Your task to perform on an android device: change the clock style Image 0: 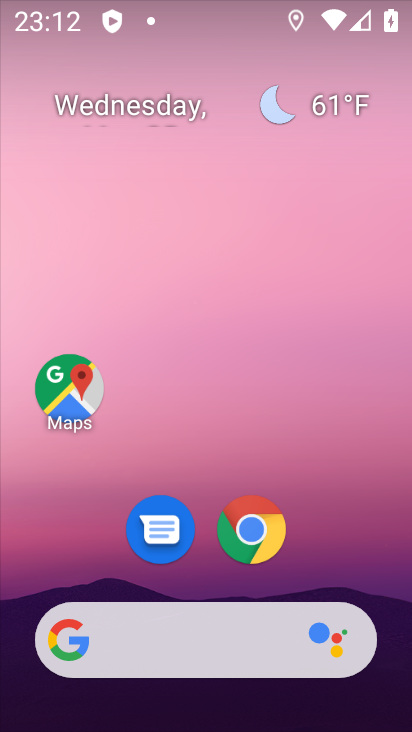
Step 0: drag from (381, 558) to (360, 254)
Your task to perform on an android device: change the clock style Image 1: 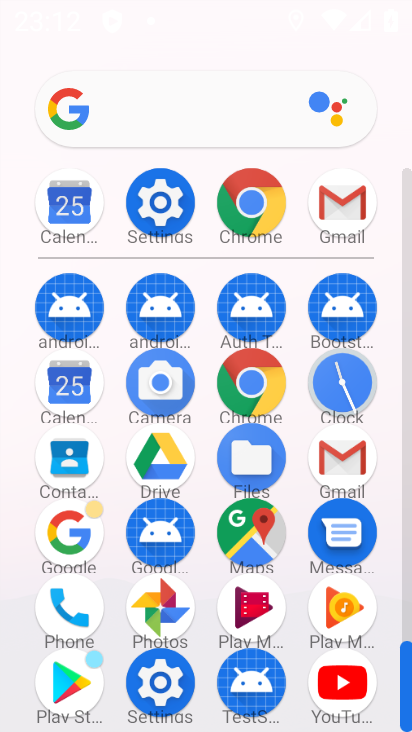
Step 1: click (352, 385)
Your task to perform on an android device: change the clock style Image 2: 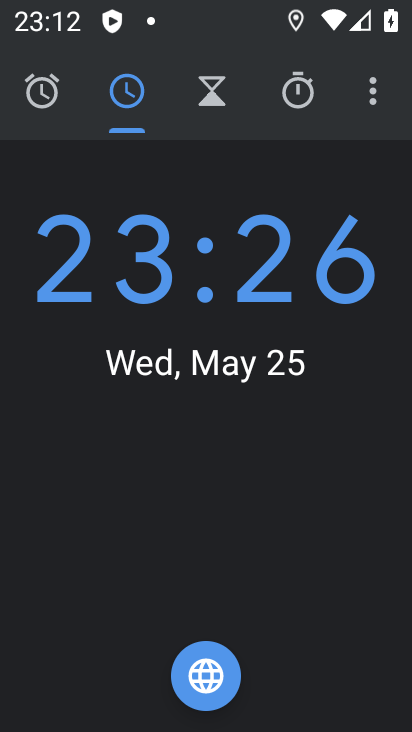
Step 2: click (374, 107)
Your task to perform on an android device: change the clock style Image 3: 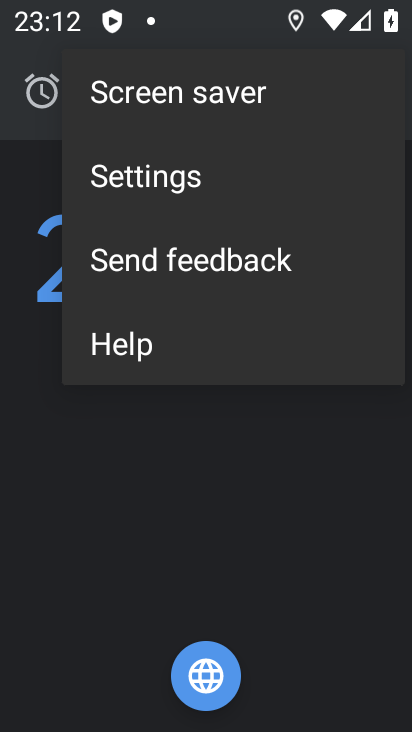
Step 3: click (184, 186)
Your task to perform on an android device: change the clock style Image 4: 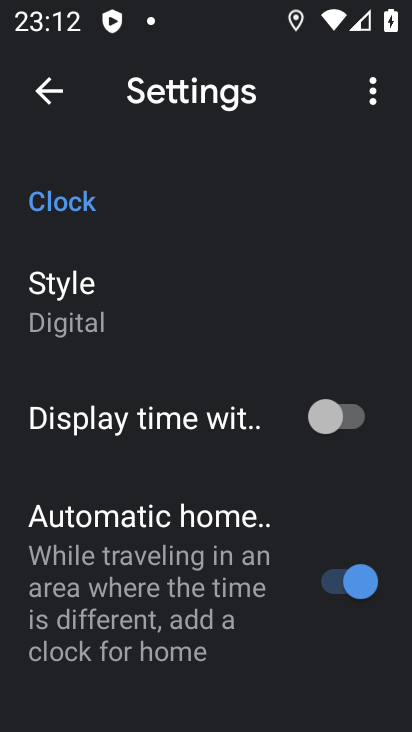
Step 4: drag from (298, 637) to (290, 502)
Your task to perform on an android device: change the clock style Image 5: 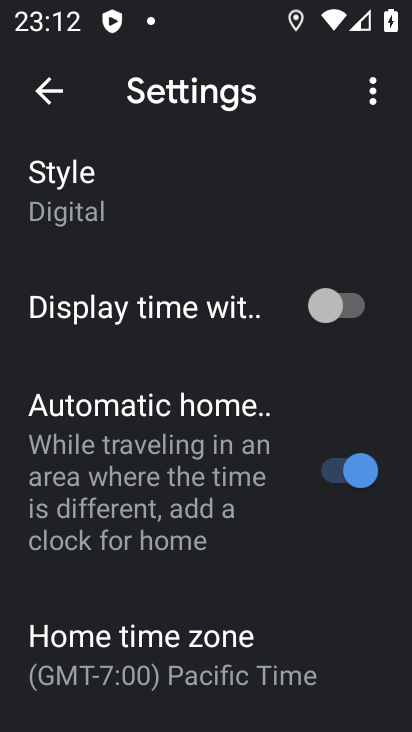
Step 5: drag from (305, 607) to (313, 528)
Your task to perform on an android device: change the clock style Image 6: 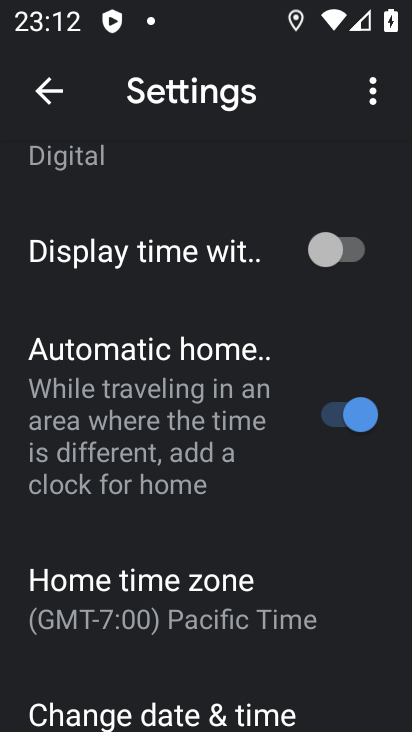
Step 6: drag from (321, 646) to (315, 518)
Your task to perform on an android device: change the clock style Image 7: 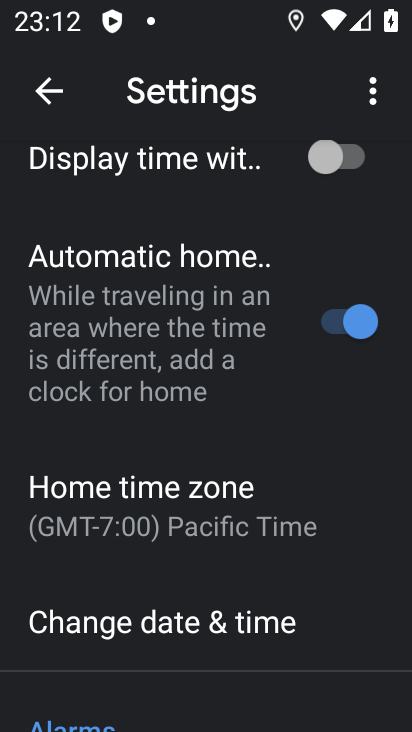
Step 7: drag from (332, 643) to (344, 516)
Your task to perform on an android device: change the clock style Image 8: 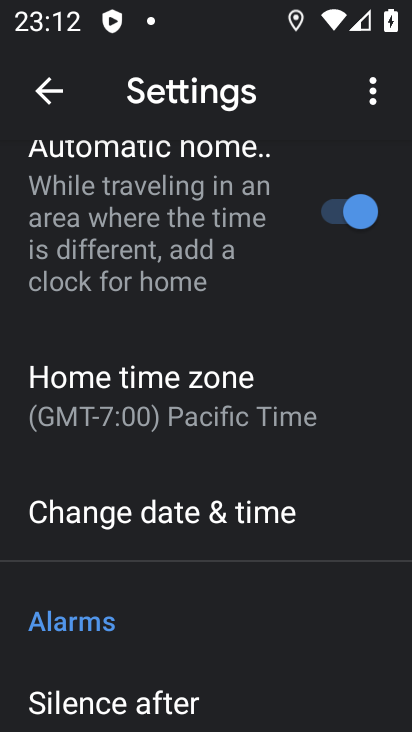
Step 8: drag from (355, 636) to (346, 522)
Your task to perform on an android device: change the clock style Image 9: 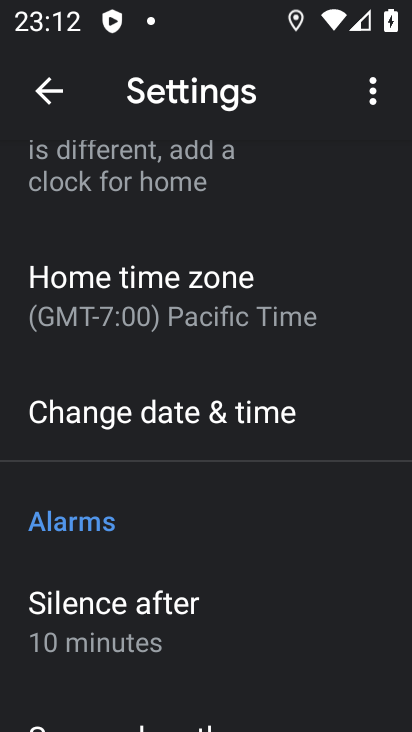
Step 9: drag from (366, 643) to (367, 527)
Your task to perform on an android device: change the clock style Image 10: 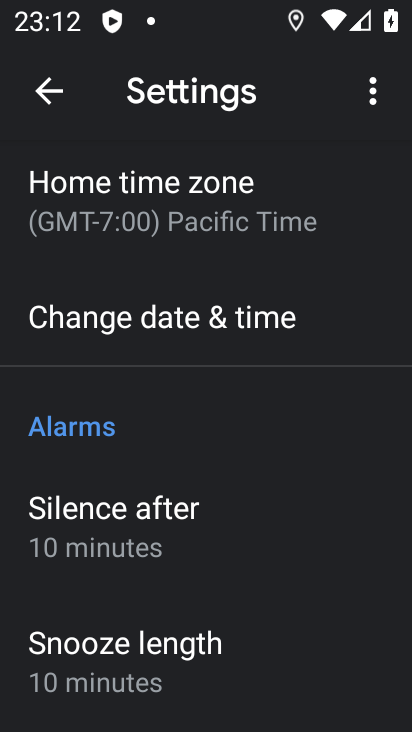
Step 10: drag from (362, 587) to (371, 493)
Your task to perform on an android device: change the clock style Image 11: 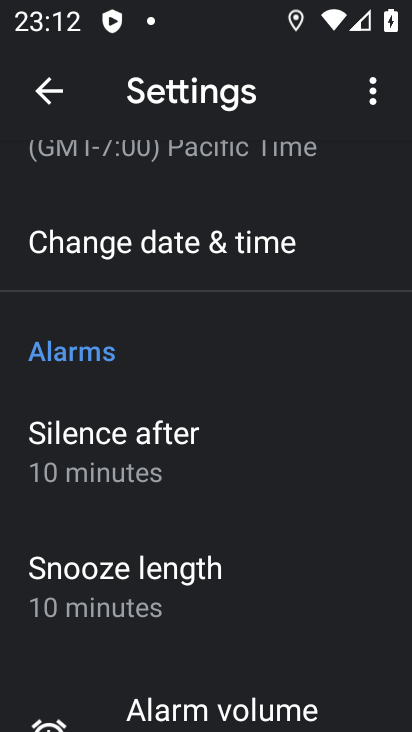
Step 11: drag from (366, 628) to (356, 523)
Your task to perform on an android device: change the clock style Image 12: 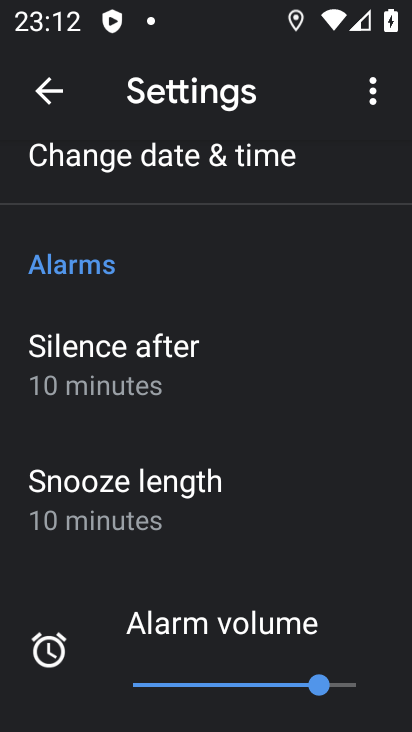
Step 12: drag from (365, 638) to (356, 499)
Your task to perform on an android device: change the clock style Image 13: 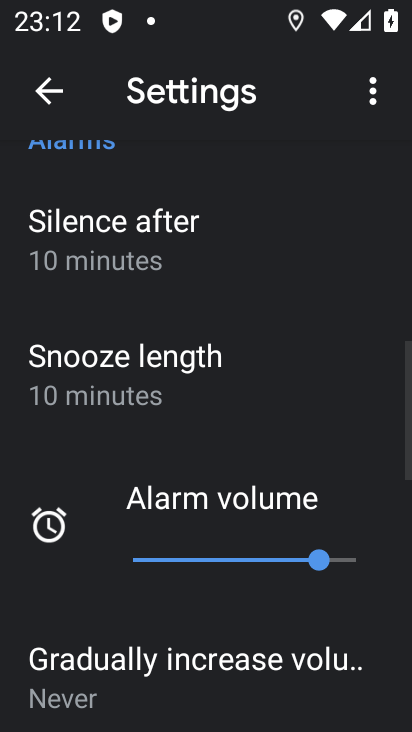
Step 13: drag from (357, 418) to (363, 509)
Your task to perform on an android device: change the clock style Image 14: 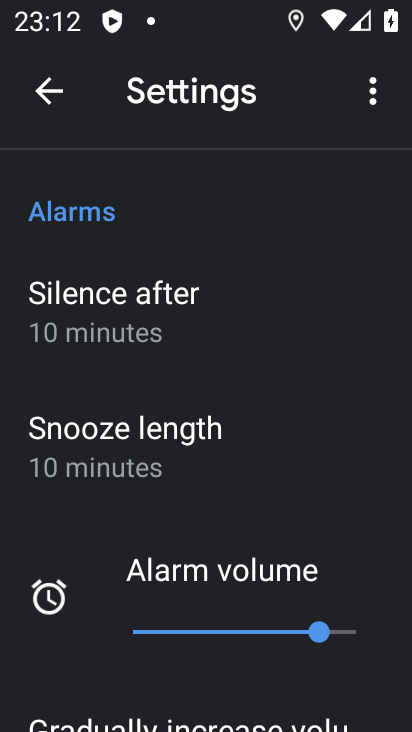
Step 14: drag from (365, 427) to (362, 520)
Your task to perform on an android device: change the clock style Image 15: 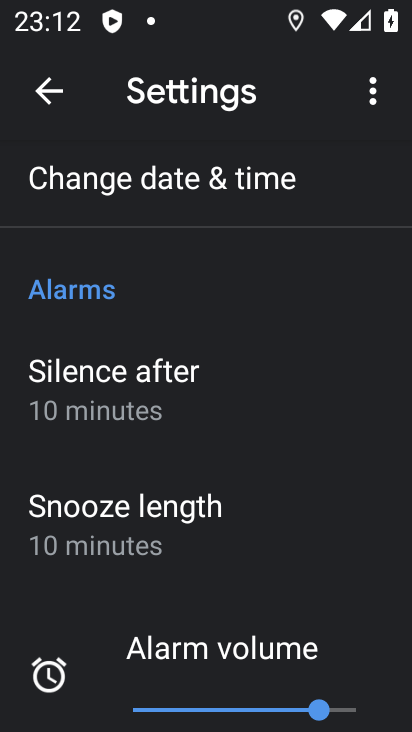
Step 15: drag from (362, 396) to (350, 499)
Your task to perform on an android device: change the clock style Image 16: 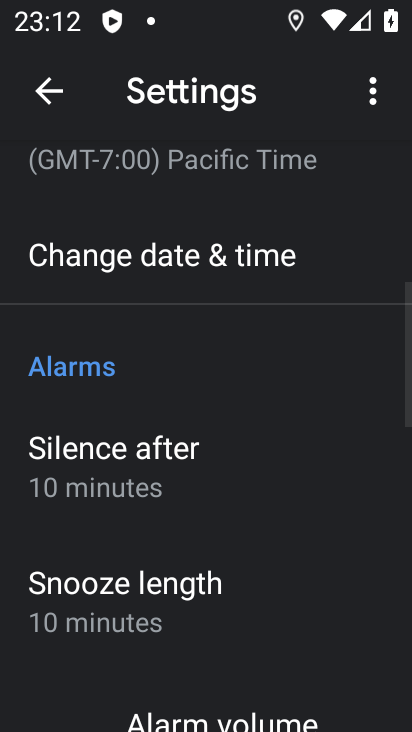
Step 16: drag from (363, 377) to (354, 483)
Your task to perform on an android device: change the clock style Image 17: 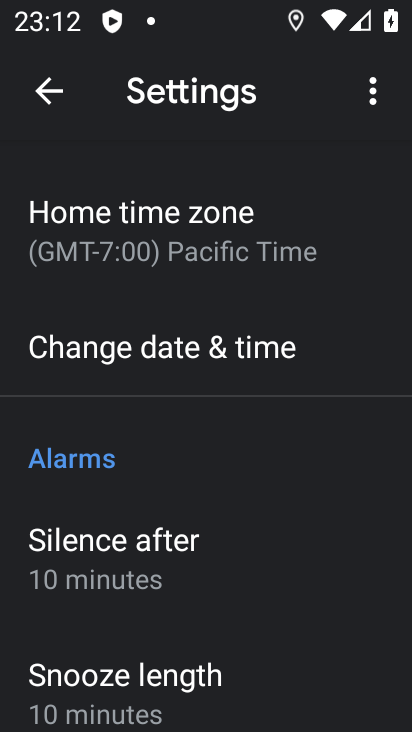
Step 17: drag from (345, 342) to (341, 439)
Your task to perform on an android device: change the clock style Image 18: 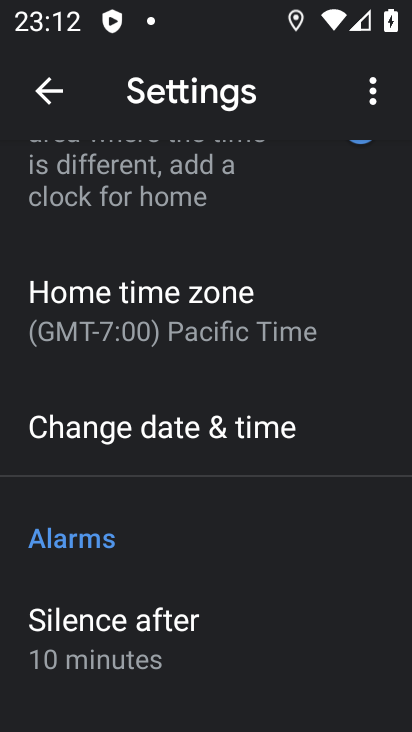
Step 18: drag from (359, 327) to (374, 415)
Your task to perform on an android device: change the clock style Image 19: 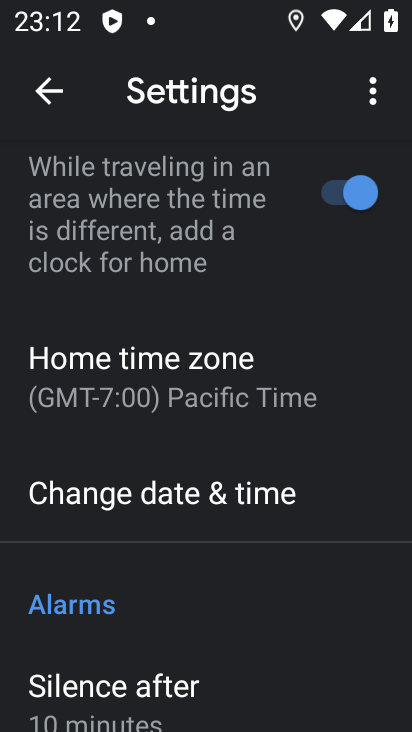
Step 19: drag from (367, 321) to (381, 423)
Your task to perform on an android device: change the clock style Image 20: 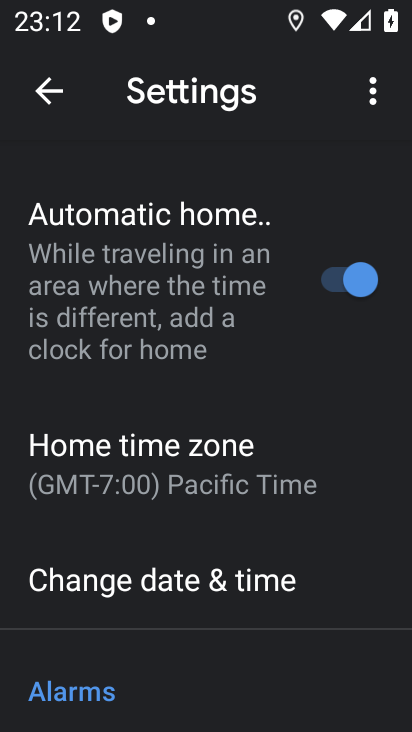
Step 20: drag from (364, 354) to (346, 467)
Your task to perform on an android device: change the clock style Image 21: 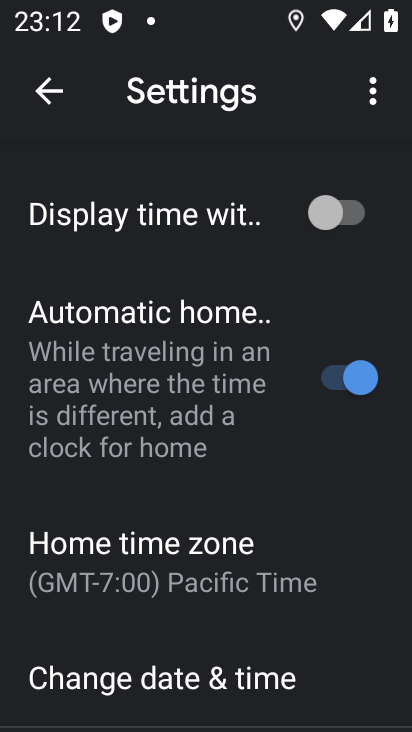
Step 21: drag from (316, 308) to (326, 421)
Your task to perform on an android device: change the clock style Image 22: 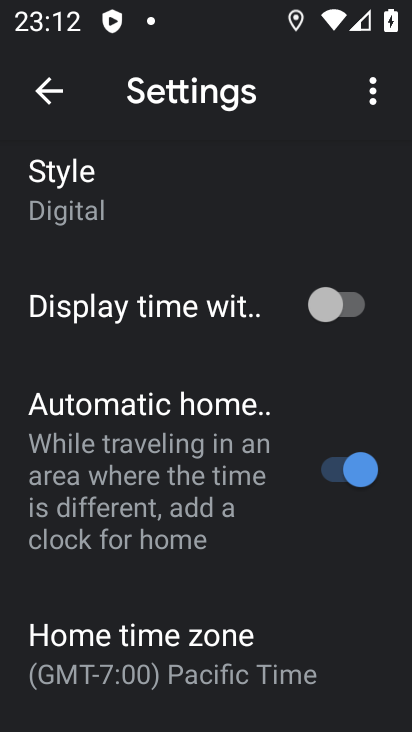
Step 22: click (101, 215)
Your task to perform on an android device: change the clock style Image 23: 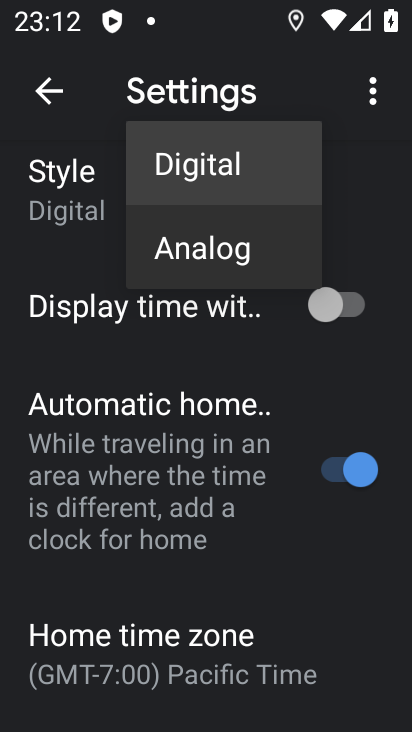
Step 23: click (194, 258)
Your task to perform on an android device: change the clock style Image 24: 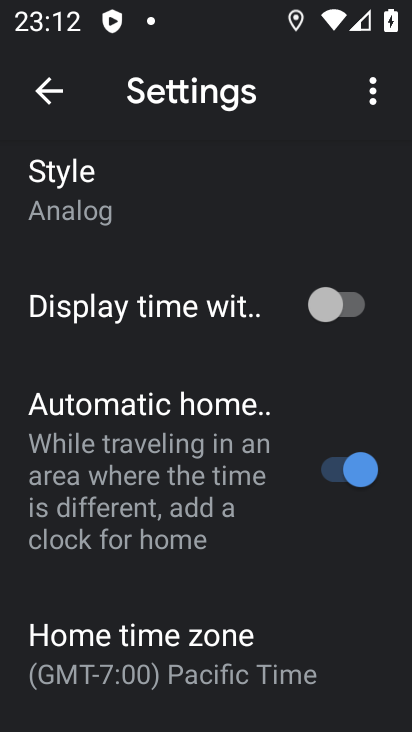
Step 24: task complete